Your task to perform on an android device: set default search engine in the chrome app Image 0: 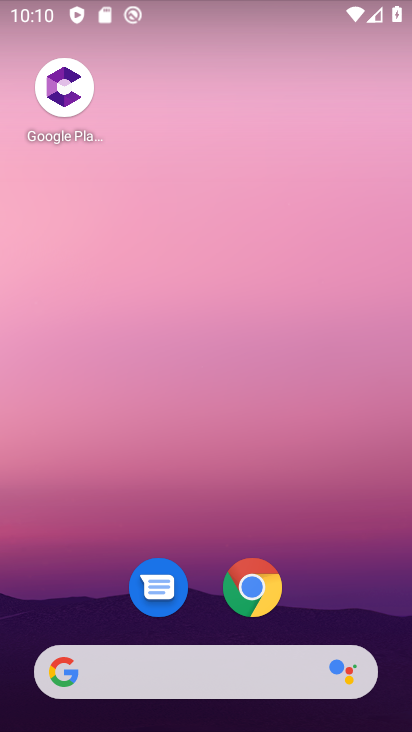
Step 0: drag from (363, 584) to (281, 161)
Your task to perform on an android device: set default search engine in the chrome app Image 1: 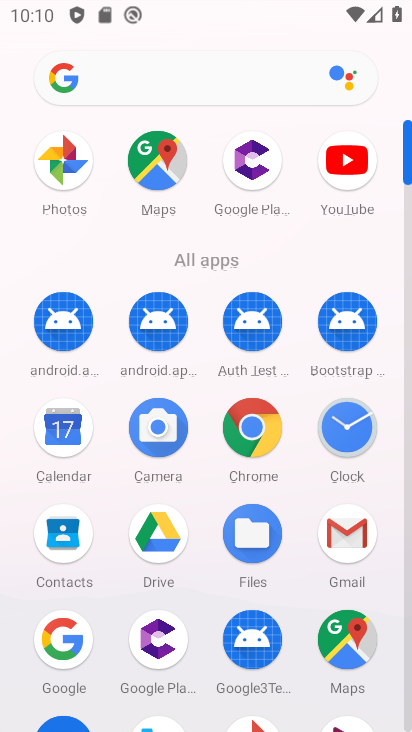
Step 1: drag from (287, 594) to (286, 224)
Your task to perform on an android device: set default search engine in the chrome app Image 2: 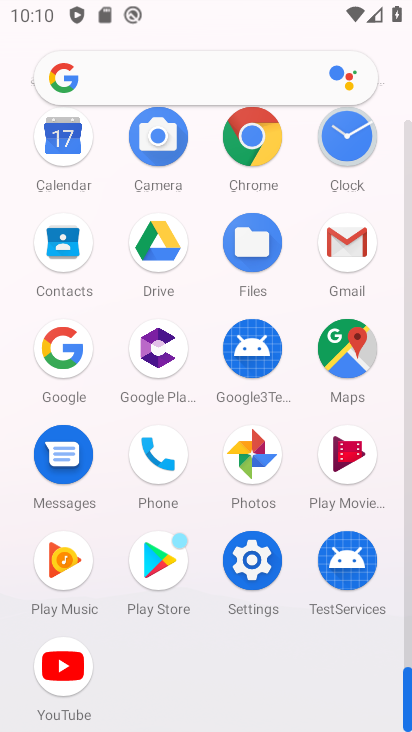
Step 2: click (265, 165)
Your task to perform on an android device: set default search engine in the chrome app Image 3: 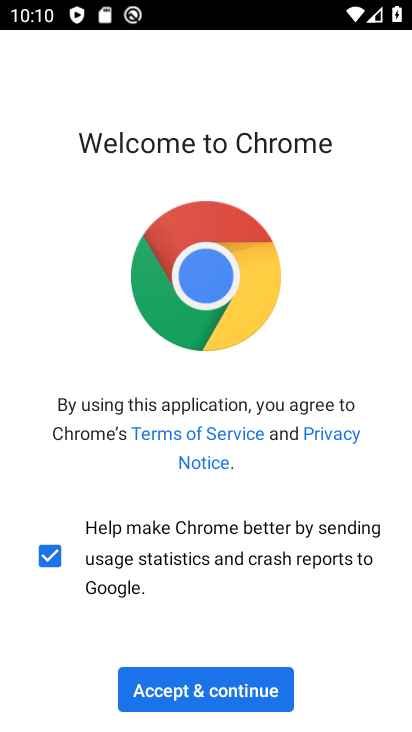
Step 3: click (268, 700)
Your task to perform on an android device: set default search engine in the chrome app Image 4: 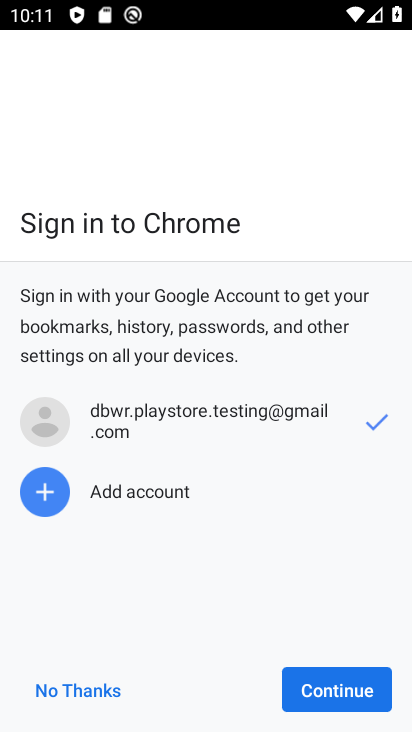
Step 4: click (356, 698)
Your task to perform on an android device: set default search engine in the chrome app Image 5: 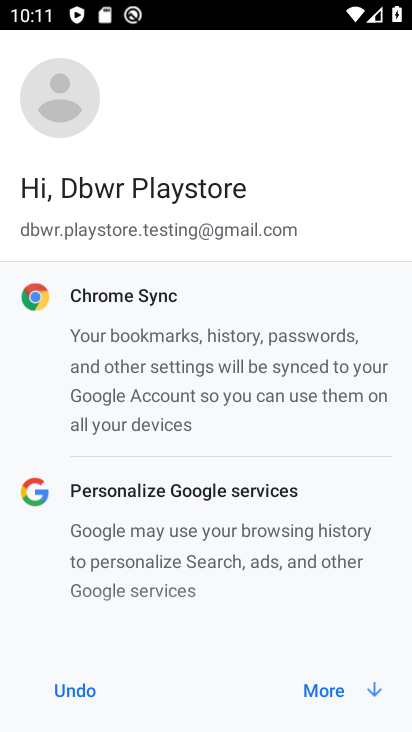
Step 5: click (341, 693)
Your task to perform on an android device: set default search engine in the chrome app Image 6: 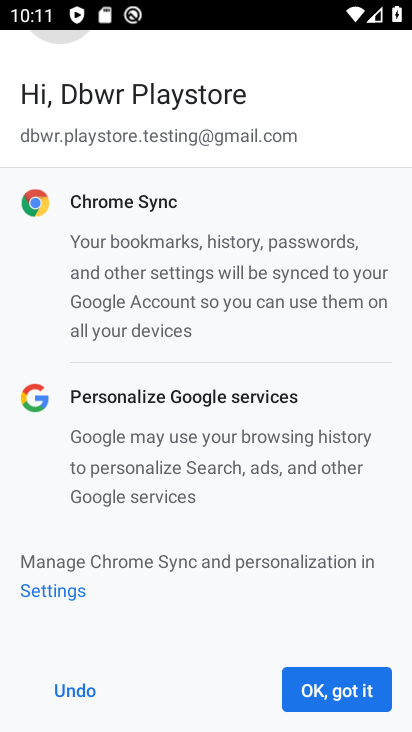
Step 6: click (338, 692)
Your task to perform on an android device: set default search engine in the chrome app Image 7: 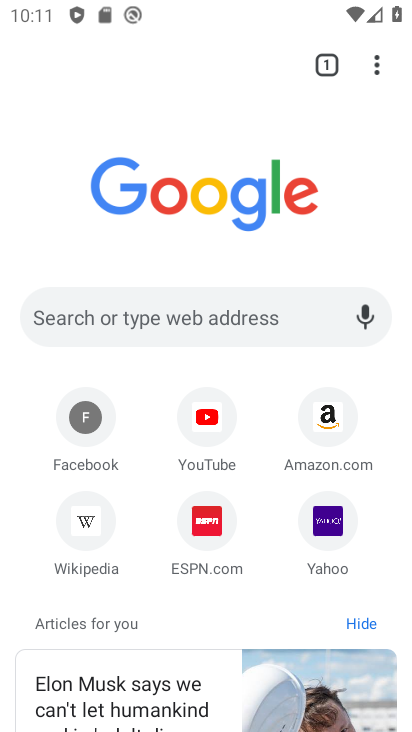
Step 7: click (387, 71)
Your task to perform on an android device: set default search engine in the chrome app Image 8: 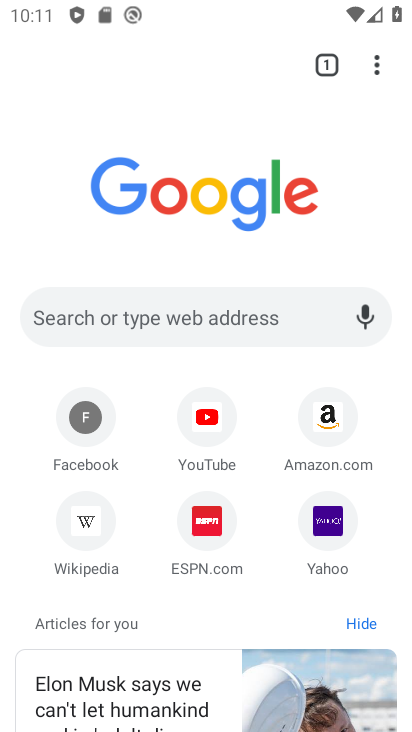
Step 8: drag from (380, 75) to (171, 550)
Your task to perform on an android device: set default search engine in the chrome app Image 9: 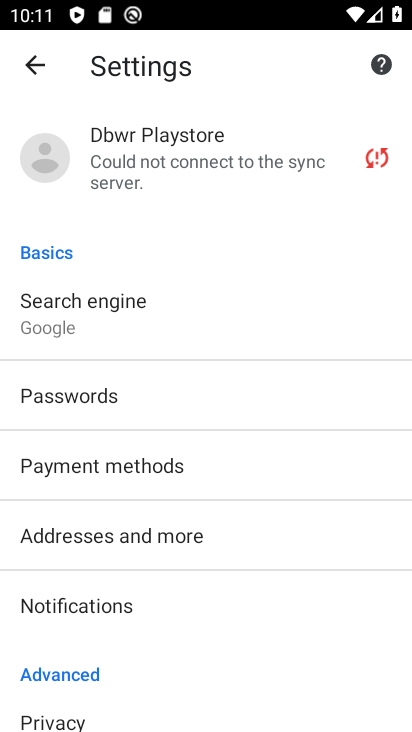
Step 9: click (108, 290)
Your task to perform on an android device: set default search engine in the chrome app Image 10: 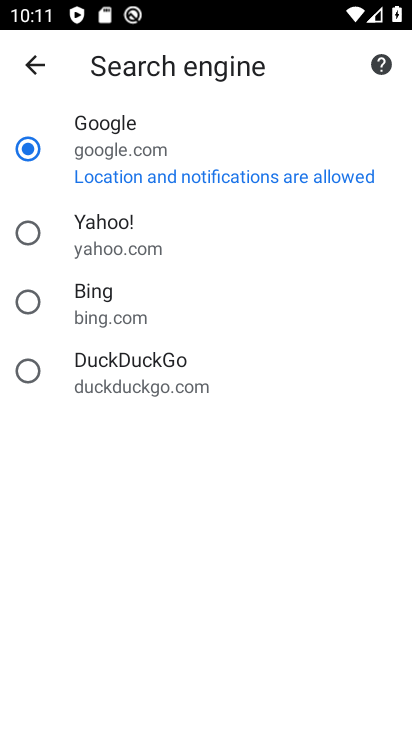
Step 10: click (26, 237)
Your task to perform on an android device: set default search engine in the chrome app Image 11: 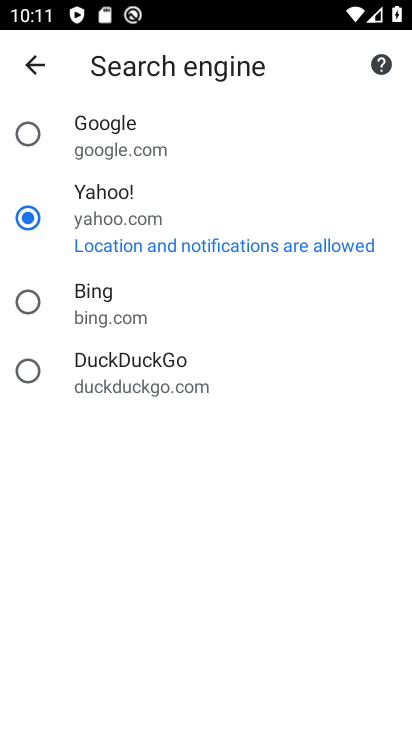
Step 11: task complete